Your task to perform on an android device: Go to eBay Image 0: 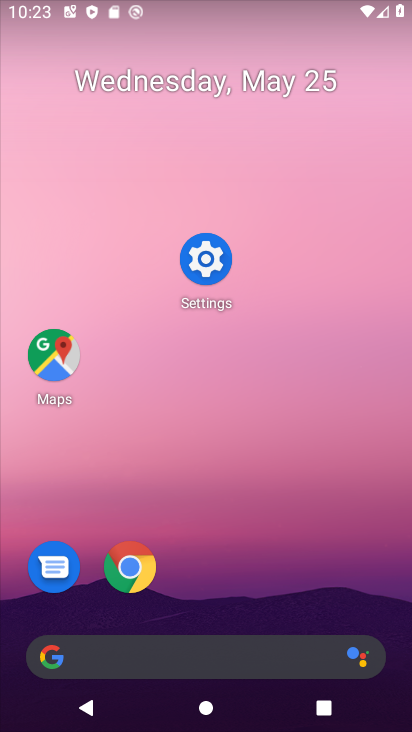
Step 0: click (140, 558)
Your task to perform on an android device: Go to eBay Image 1: 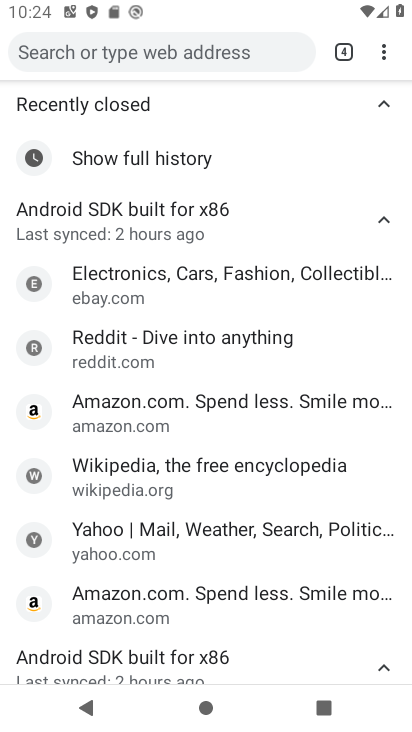
Step 1: click (164, 270)
Your task to perform on an android device: Go to eBay Image 2: 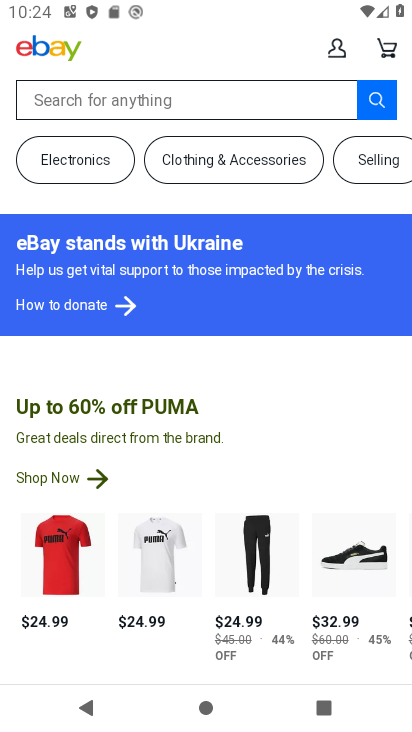
Step 2: task complete